Your task to perform on an android device: Open calendar and show me the first week of next month Image 0: 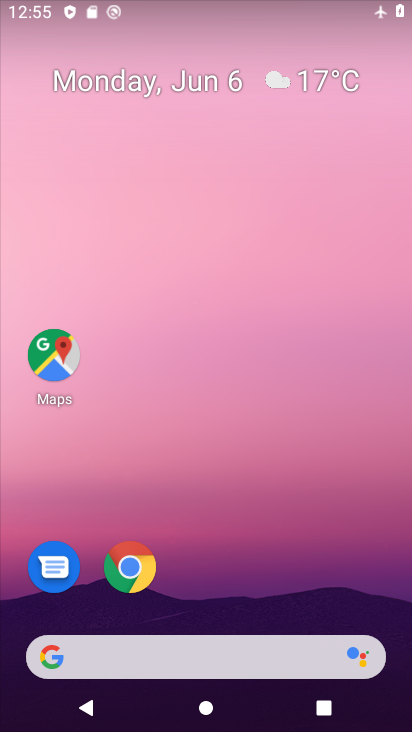
Step 0: drag from (135, 700) to (154, 72)
Your task to perform on an android device: Open calendar and show me the first week of next month Image 1: 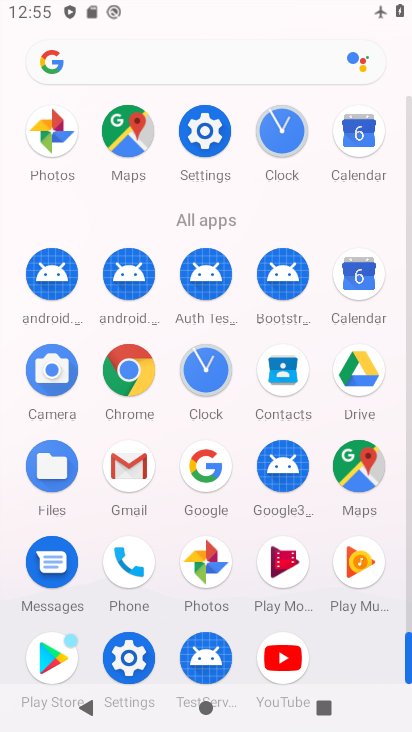
Step 1: click (352, 135)
Your task to perform on an android device: Open calendar and show me the first week of next month Image 2: 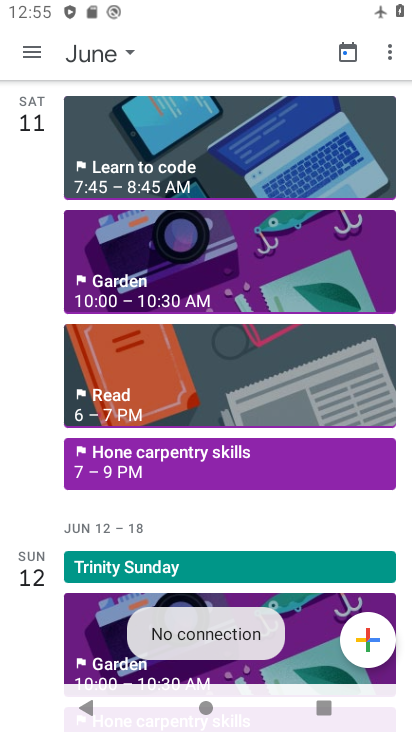
Step 2: click (89, 49)
Your task to perform on an android device: Open calendar and show me the first week of next month Image 3: 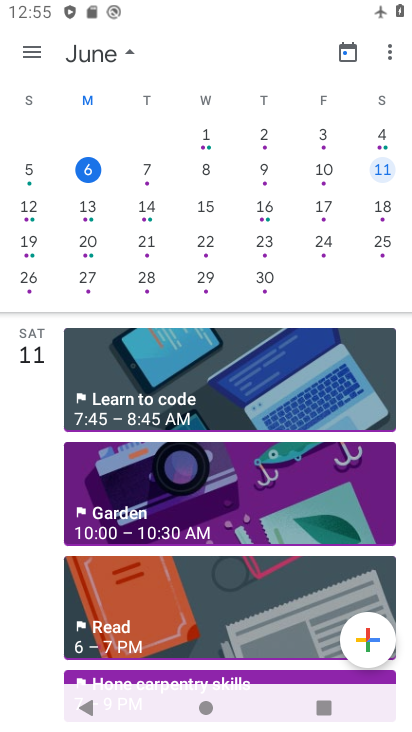
Step 3: drag from (349, 172) to (25, 185)
Your task to perform on an android device: Open calendar and show me the first week of next month Image 4: 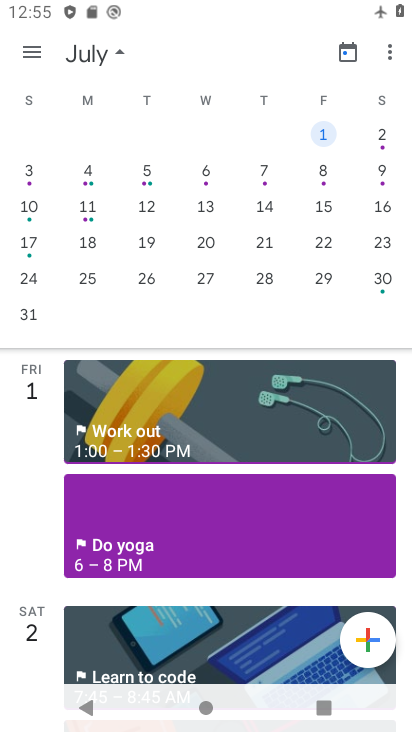
Step 4: click (322, 133)
Your task to perform on an android device: Open calendar and show me the first week of next month Image 5: 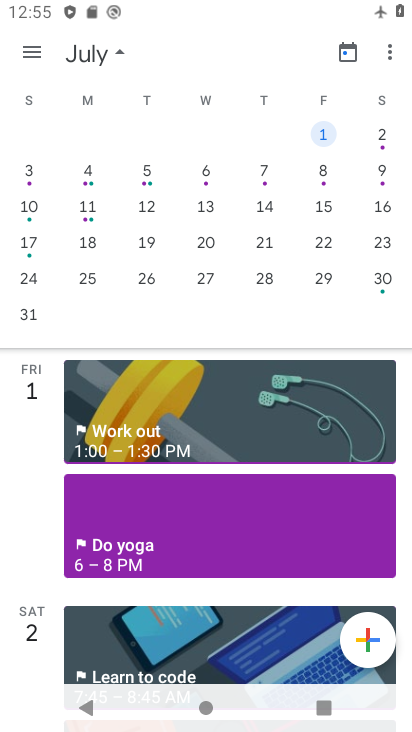
Step 5: task complete